Your task to perform on an android device: Open calendar and show me the third week of next month Image 0: 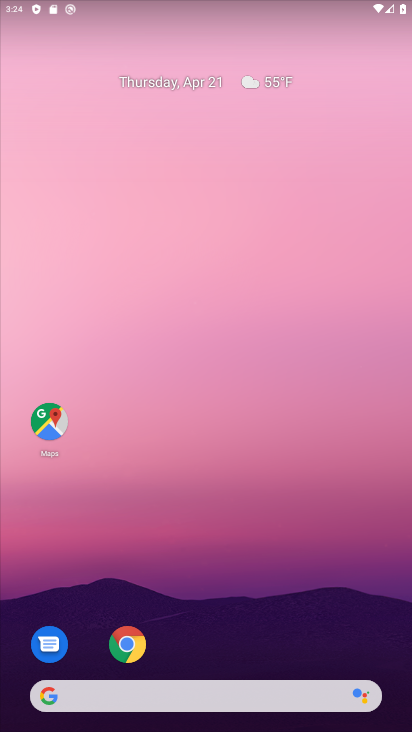
Step 0: drag from (191, 666) to (165, 23)
Your task to perform on an android device: Open calendar and show me the third week of next month Image 1: 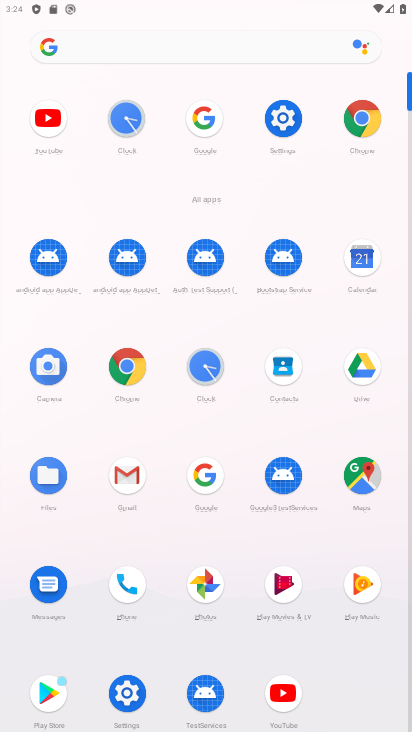
Step 1: click (363, 261)
Your task to perform on an android device: Open calendar and show me the third week of next month Image 2: 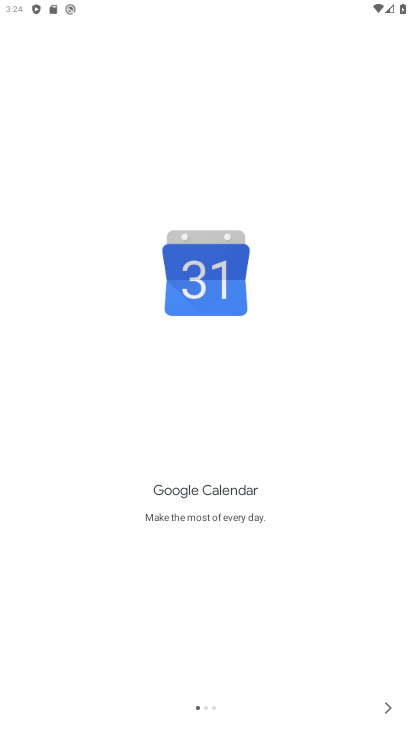
Step 2: click (393, 703)
Your task to perform on an android device: Open calendar and show me the third week of next month Image 3: 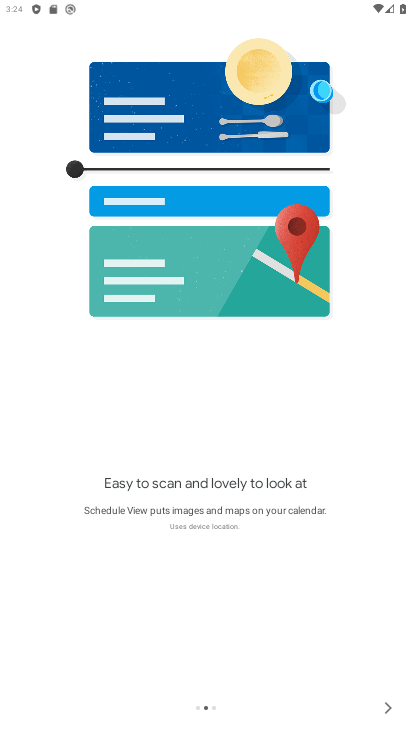
Step 3: click (396, 705)
Your task to perform on an android device: Open calendar and show me the third week of next month Image 4: 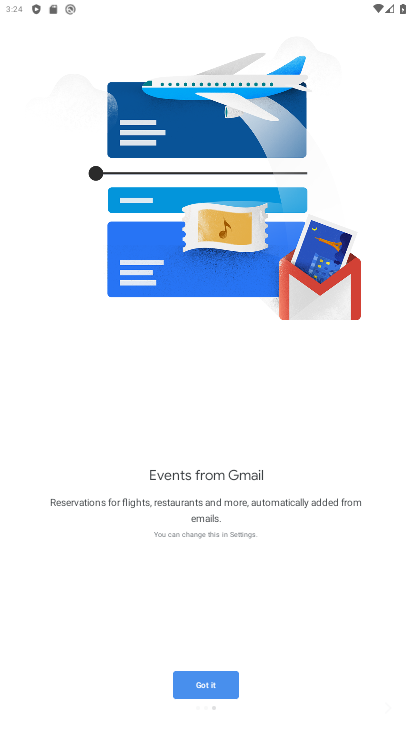
Step 4: click (218, 686)
Your task to perform on an android device: Open calendar and show me the third week of next month Image 5: 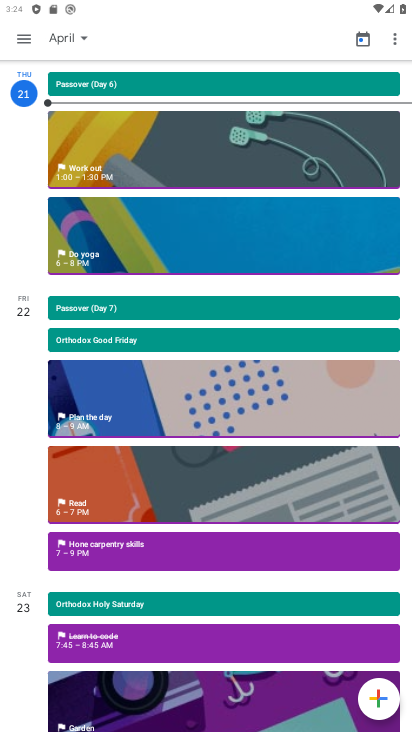
Step 5: click (23, 33)
Your task to perform on an android device: Open calendar and show me the third week of next month Image 6: 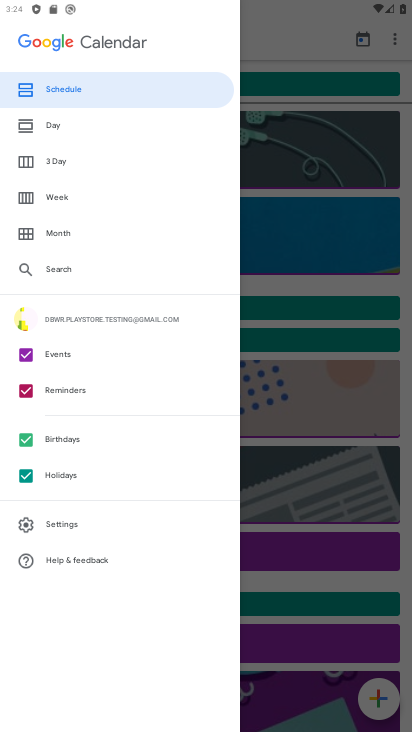
Step 6: click (72, 198)
Your task to perform on an android device: Open calendar and show me the third week of next month Image 7: 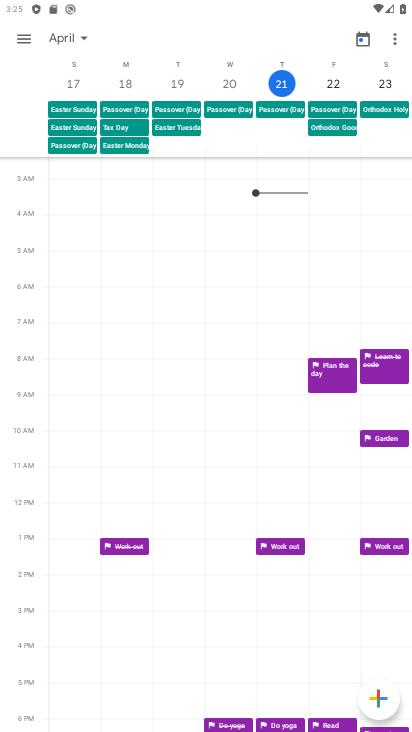
Step 7: task complete